Your task to perform on an android device: Open Reddit.com Image 0: 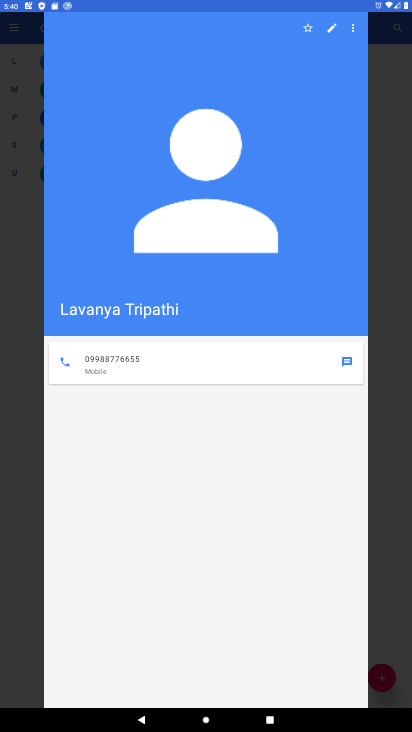
Step 0: press home button
Your task to perform on an android device: Open Reddit.com Image 1: 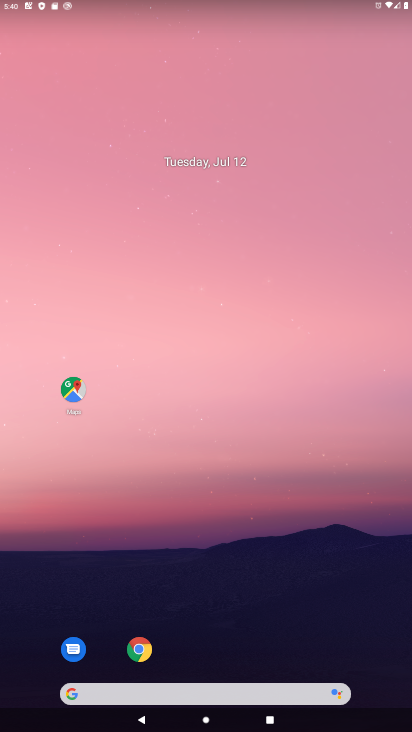
Step 1: click (141, 651)
Your task to perform on an android device: Open Reddit.com Image 2: 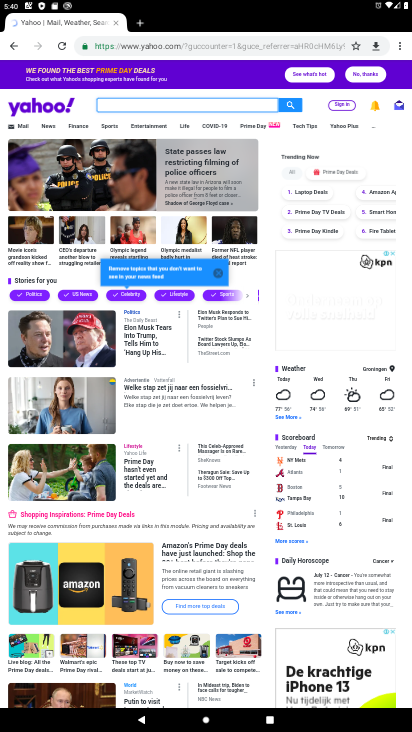
Step 2: click (309, 47)
Your task to perform on an android device: Open Reddit.com Image 3: 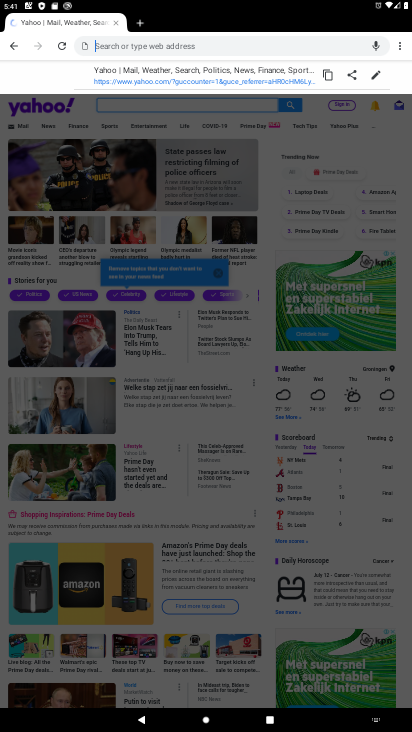
Step 3: type "Reddit.com"
Your task to perform on an android device: Open Reddit.com Image 4: 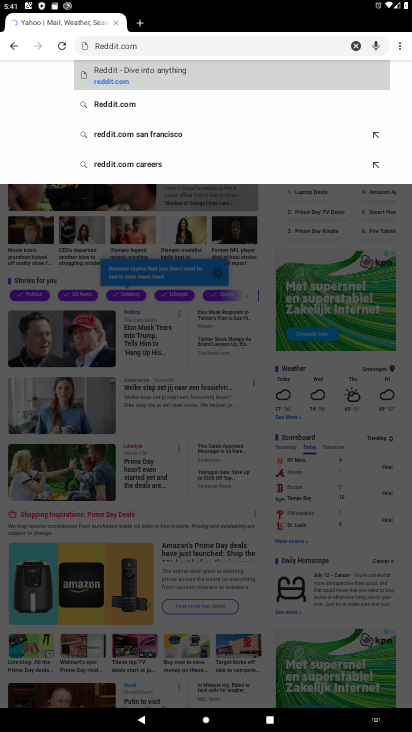
Step 4: click (128, 105)
Your task to perform on an android device: Open Reddit.com Image 5: 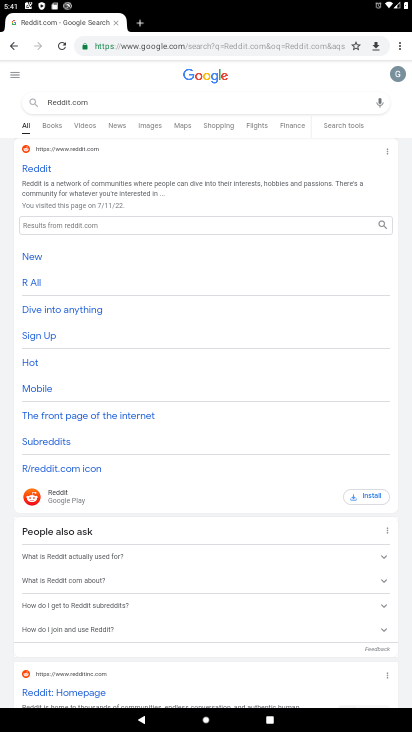
Step 5: click (37, 168)
Your task to perform on an android device: Open Reddit.com Image 6: 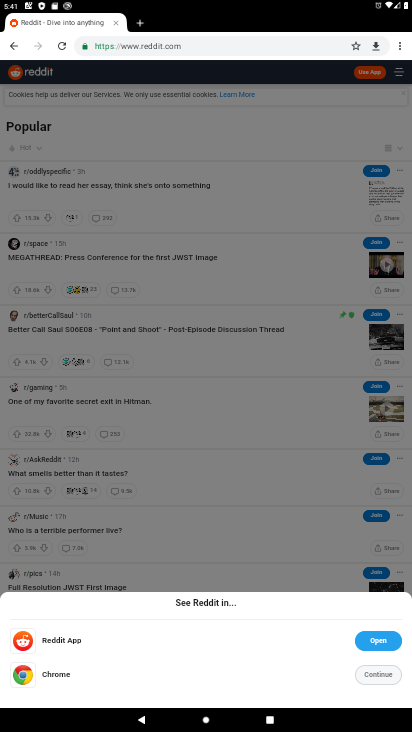
Step 6: click (379, 676)
Your task to perform on an android device: Open Reddit.com Image 7: 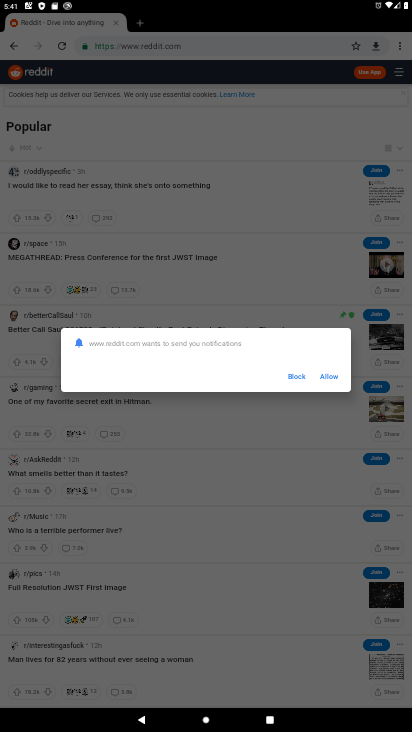
Step 7: click (333, 379)
Your task to perform on an android device: Open Reddit.com Image 8: 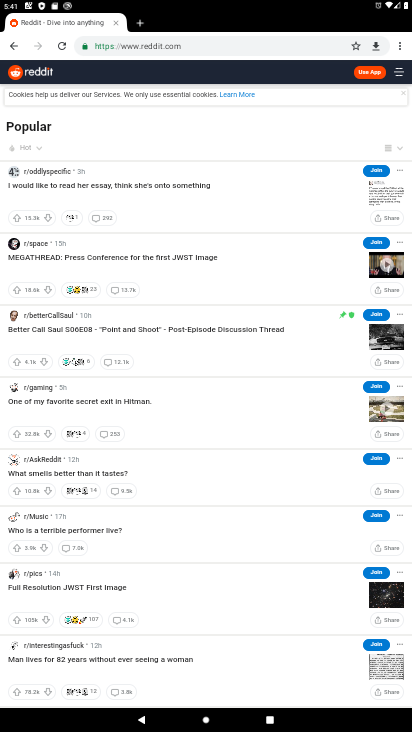
Step 8: task complete